Your task to perform on an android device: see sites visited before in the chrome app Image 0: 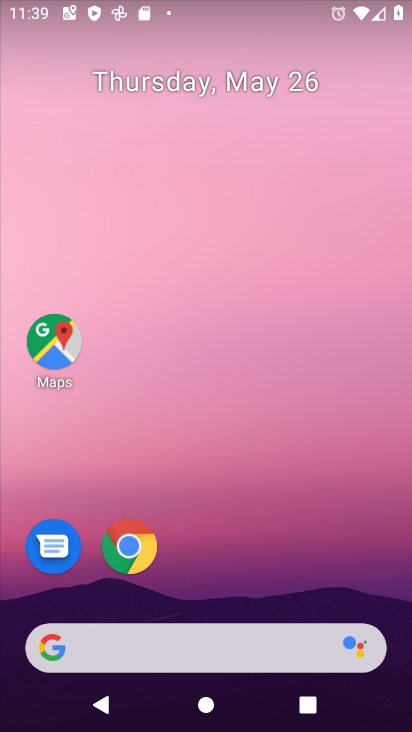
Step 0: click (123, 550)
Your task to perform on an android device: see sites visited before in the chrome app Image 1: 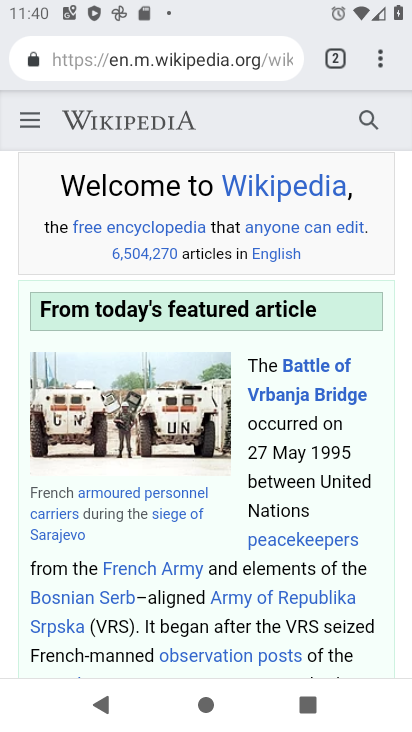
Step 1: click (368, 64)
Your task to perform on an android device: see sites visited before in the chrome app Image 2: 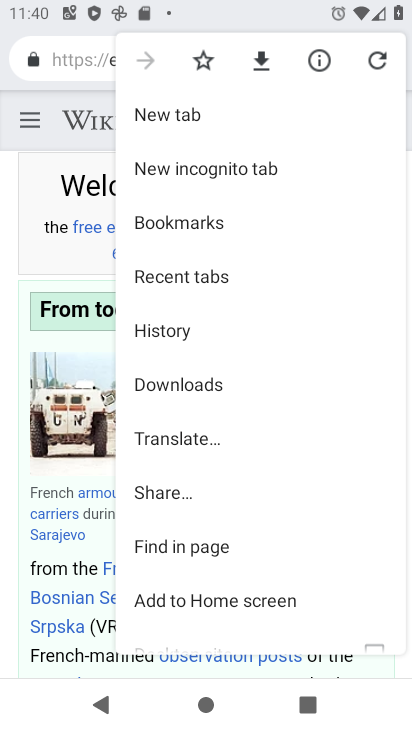
Step 2: drag from (261, 567) to (291, 157)
Your task to perform on an android device: see sites visited before in the chrome app Image 3: 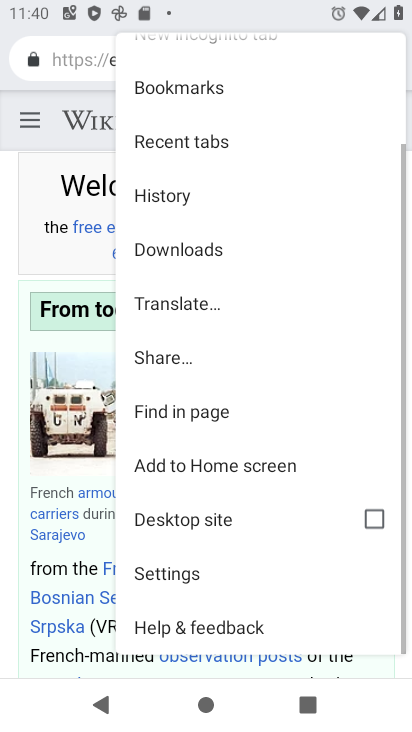
Step 3: click (178, 587)
Your task to perform on an android device: see sites visited before in the chrome app Image 4: 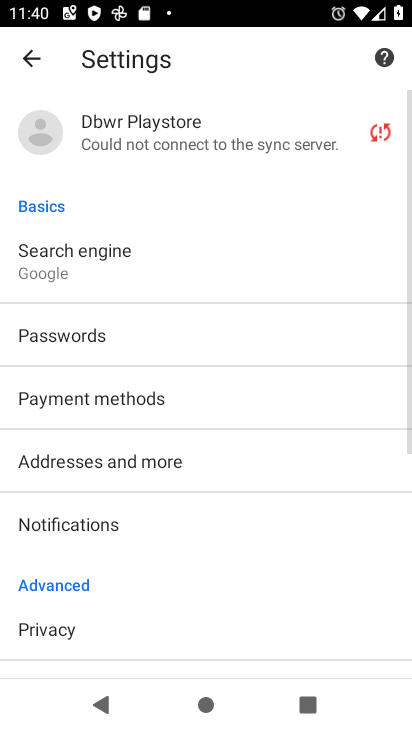
Step 4: drag from (199, 579) to (181, 284)
Your task to perform on an android device: see sites visited before in the chrome app Image 5: 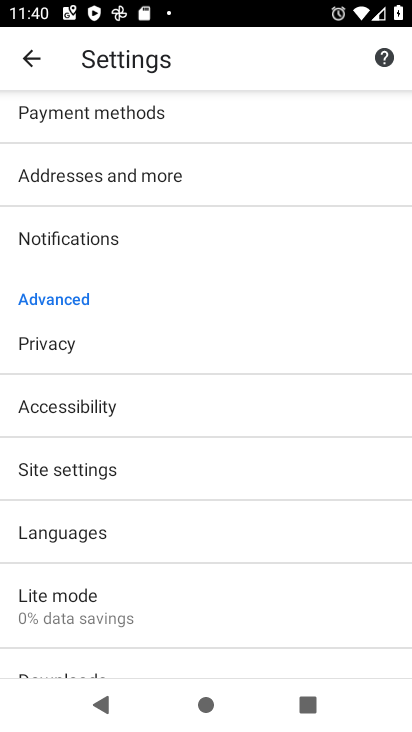
Step 5: drag from (142, 232) to (218, 567)
Your task to perform on an android device: see sites visited before in the chrome app Image 6: 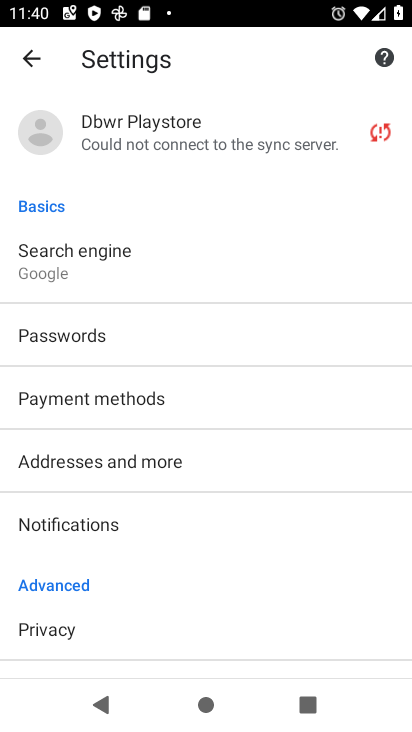
Step 6: drag from (206, 584) to (197, 163)
Your task to perform on an android device: see sites visited before in the chrome app Image 7: 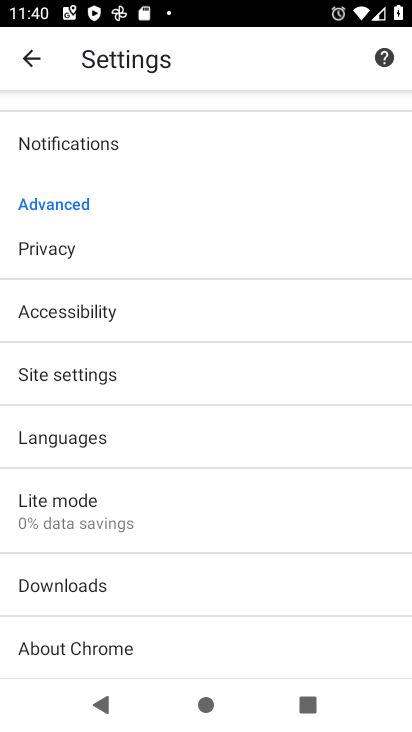
Step 7: drag from (150, 268) to (223, 569)
Your task to perform on an android device: see sites visited before in the chrome app Image 8: 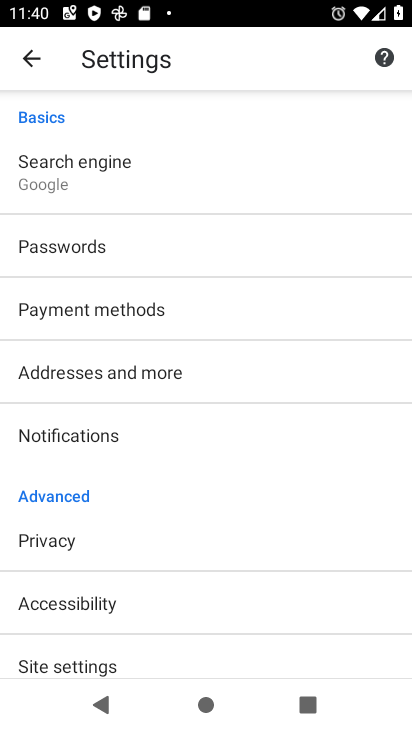
Step 8: press back button
Your task to perform on an android device: see sites visited before in the chrome app Image 9: 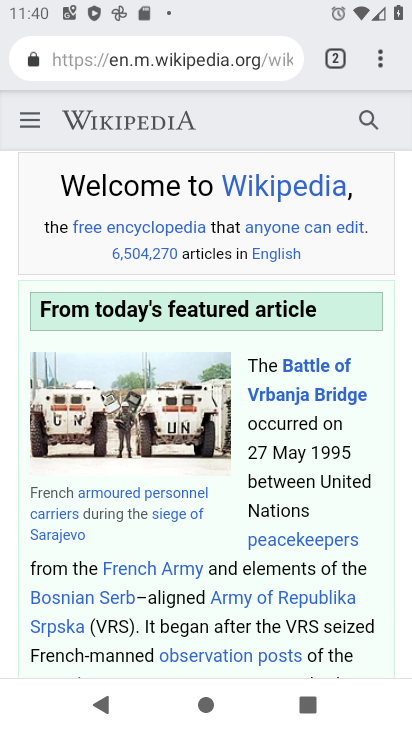
Step 9: click (378, 54)
Your task to perform on an android device: see sites visited before in the chrome app Image 10: 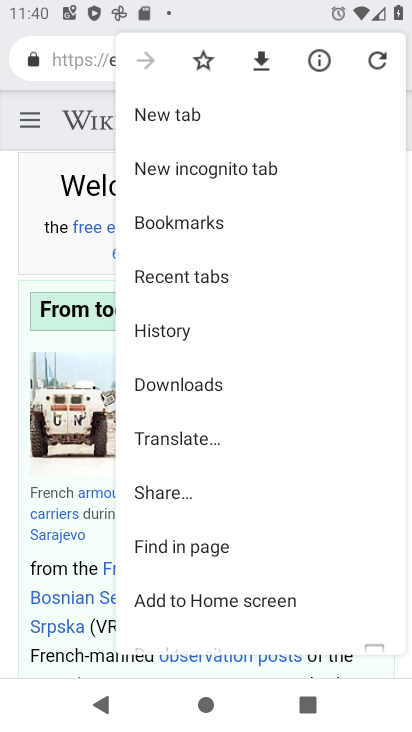
Step 10: click (196, 324)
Your task to perform on an android device: see sites visited before in the chrome app Image 11: 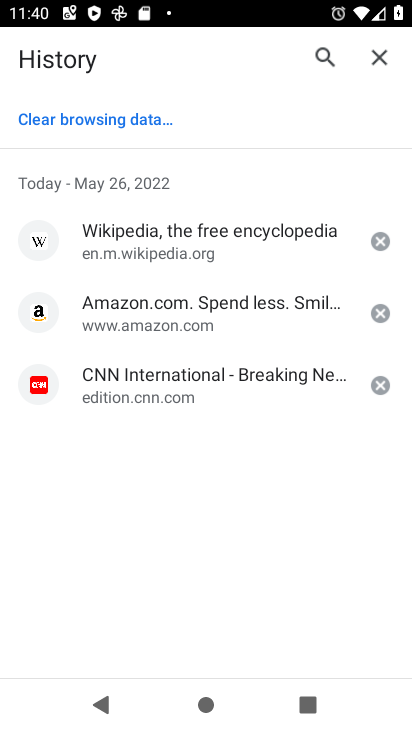
Step 11: task complete